Your task to perform on an android device: Go to Maps Image 0: 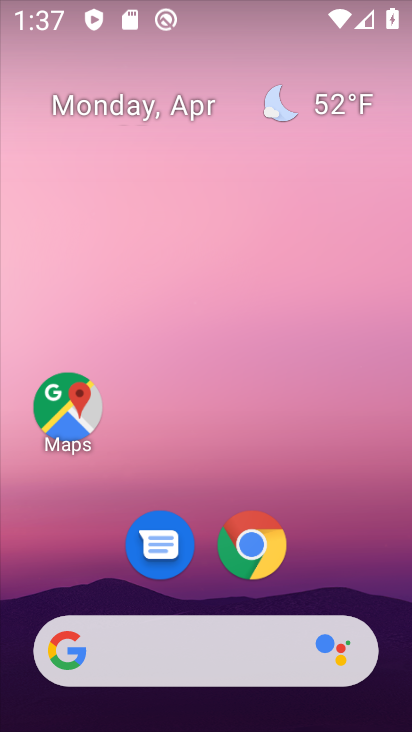
Step 0: drag from (221, 702) to (246, 146)
Your task to perform on an android device: Go to Maps Image 1: 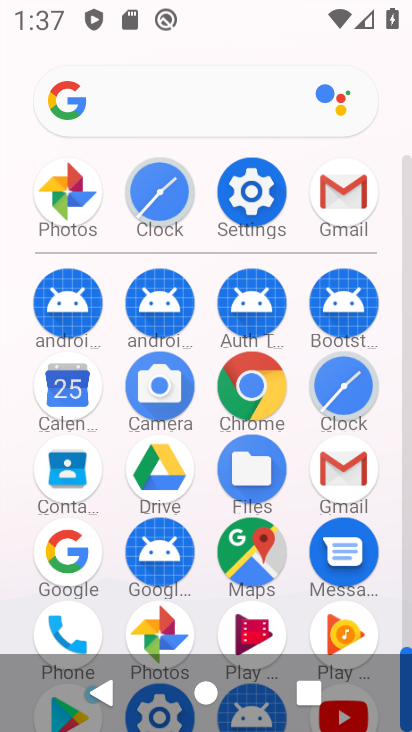
Step 1: click (259, 555)
Your task to perform on an android device: Go to Maps Image 2: 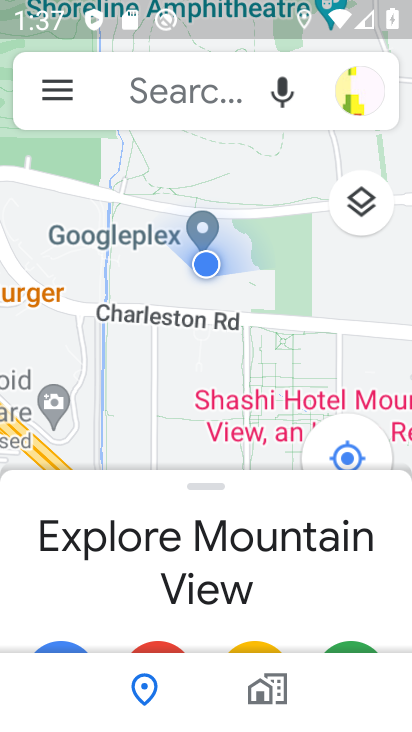
Step 2: task complete